Your task to perform on an android device: find snoozed emails in the gmail app Image 0: 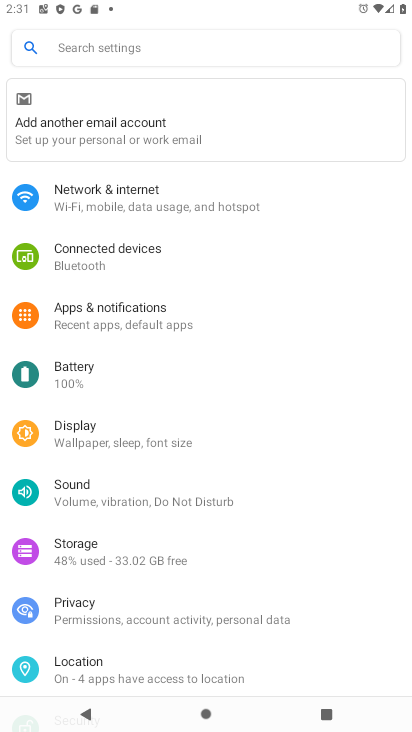
Step 0: press home button
Your task to perform on an android device: find snoozed emails in the gmail app Image 1: 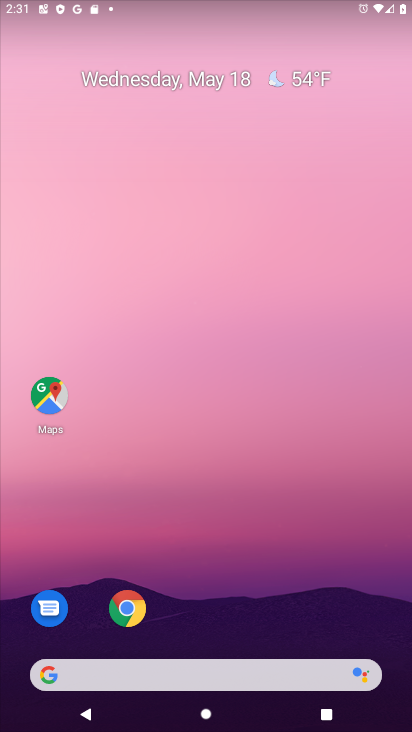
Step 1: drag from (309, 619) to (347, 130)
Your task to perform on an android device: find snoozed emails in the gmail app Image 2: 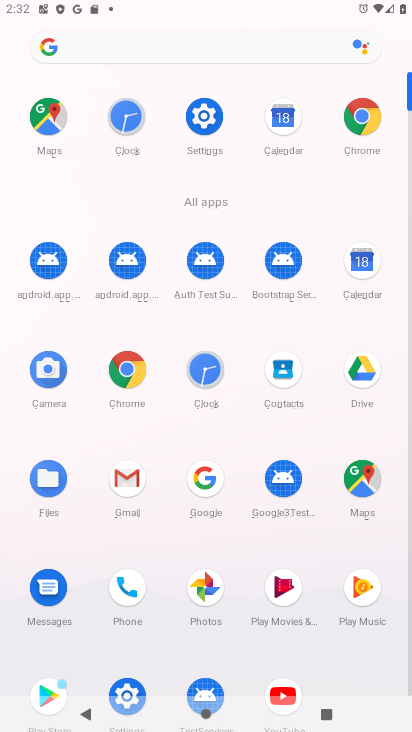
Step 2: click (130, 478)
Your task to perform on an android device: find snoozed emails in the gmail app Image 3: 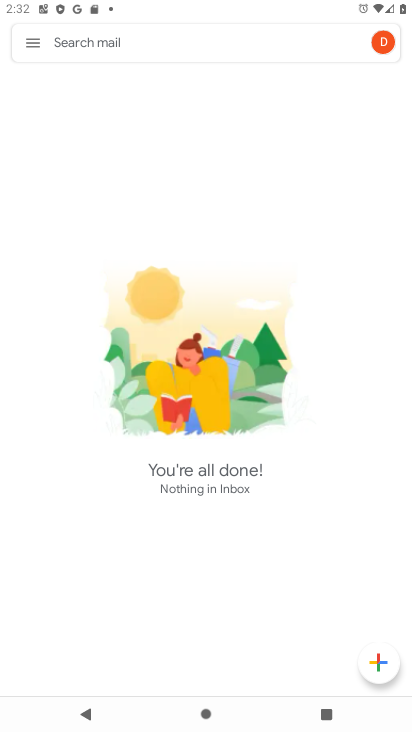
Step 3: click (30, 40)
Your task to perform on an android device: find snoozed emails in the gmail app Image 4: 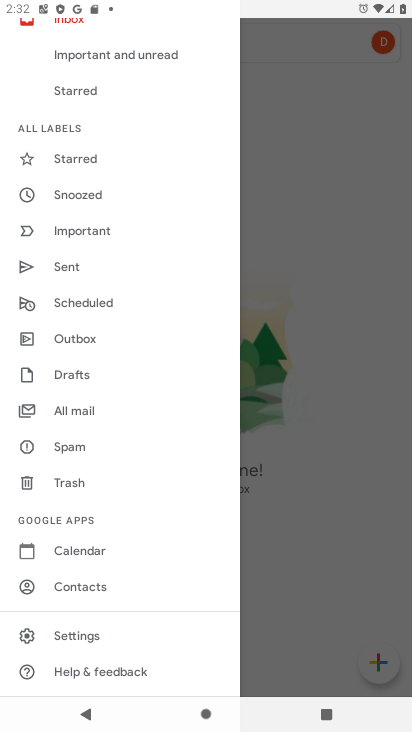
Step 4: click (66, 194)
Your task to perform on an android device: find snoozed emails in the gmail app Image 5: 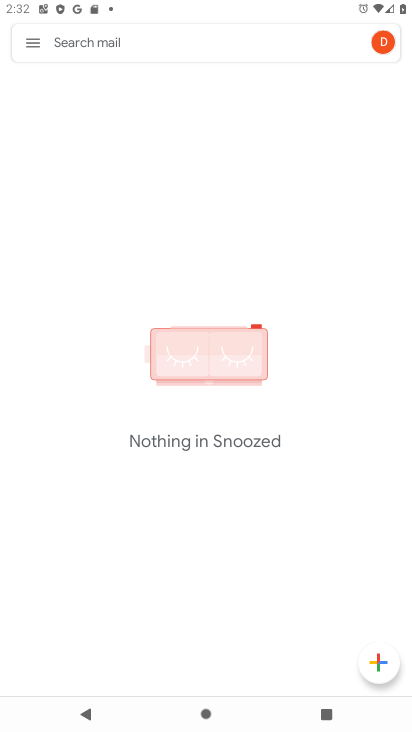
Step 5: task complete